Your task to perform on an android device: Open battery settings Image 0: 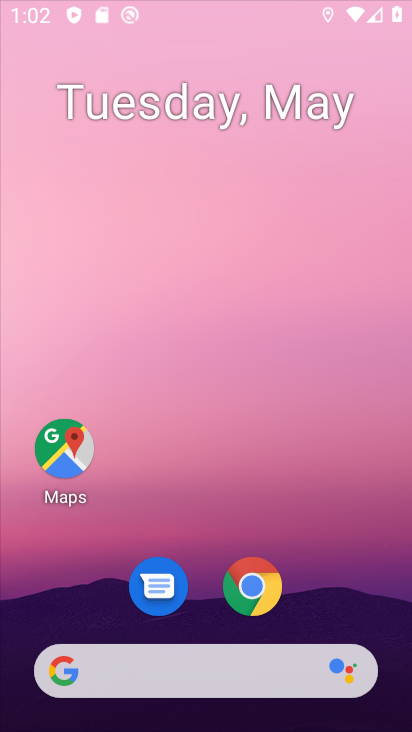
Step 0: click (331, 142)
Your task to perform on an android device: Open battery settings Image 1: 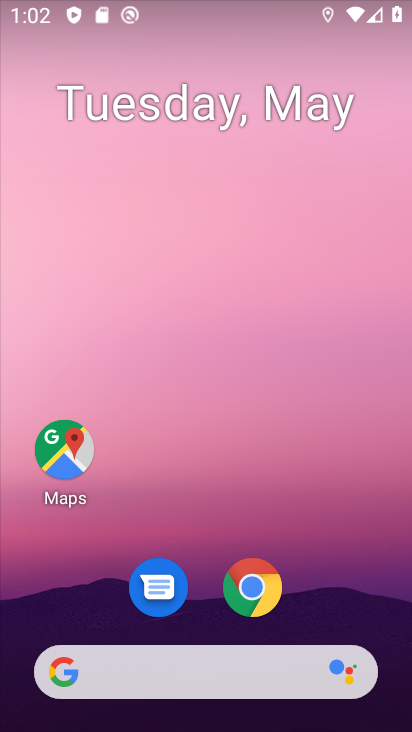
Step 1: drag from (223, 625) to (254, 102)
Your task to perform on an android device: Open battery settings Image 2: 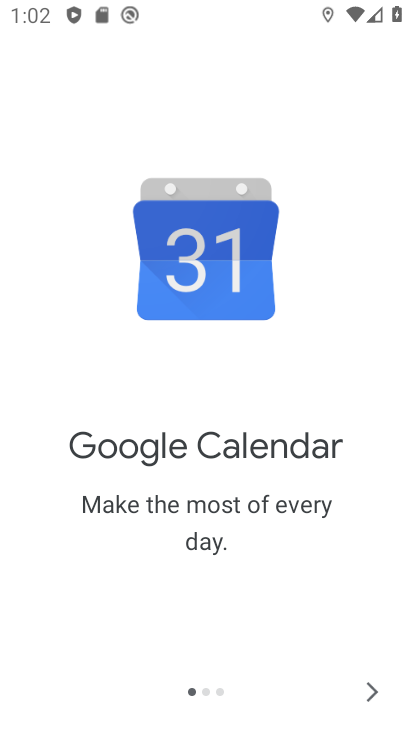
Step 2: press home button
Your task to perform on an android device: Open battery settings Image 3: 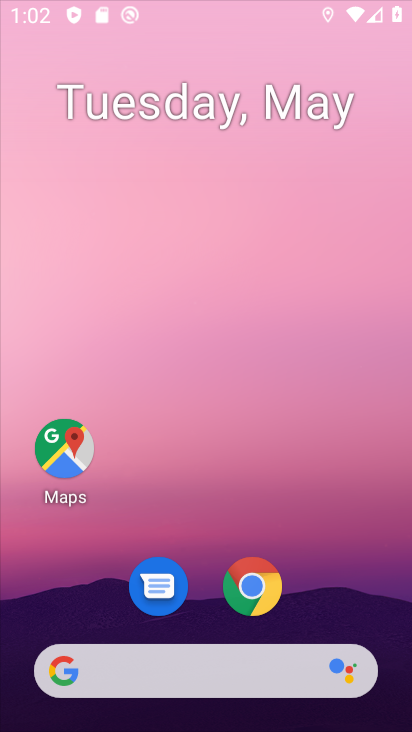
Step 3: drag from (255, 654) to (328, 52)
Your task to perform on an android device: Open battery settings Image 4: 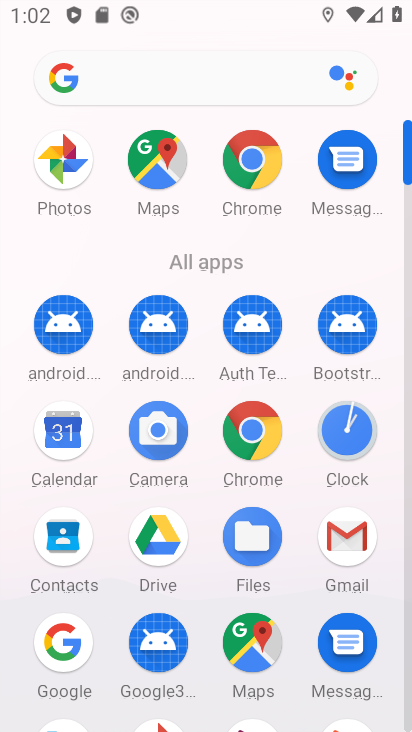
Step 4: drag from (190, 621) to (225, 110)
Your task to perform on an android device: Open battery settings Image 5: 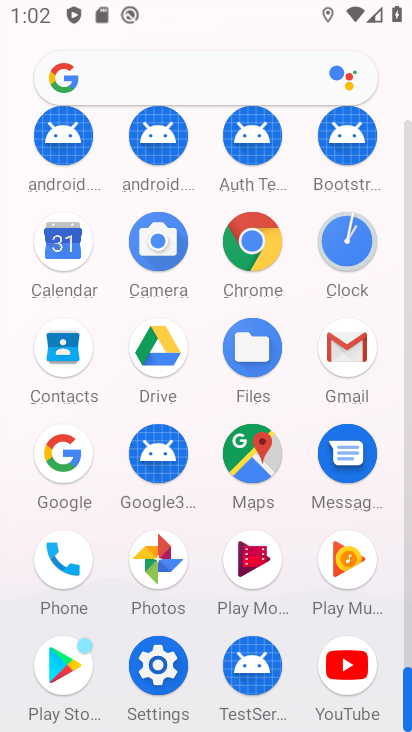
Step 5: click (154, 688)
Your task to perform on an android device: Open battery settings Image 6: 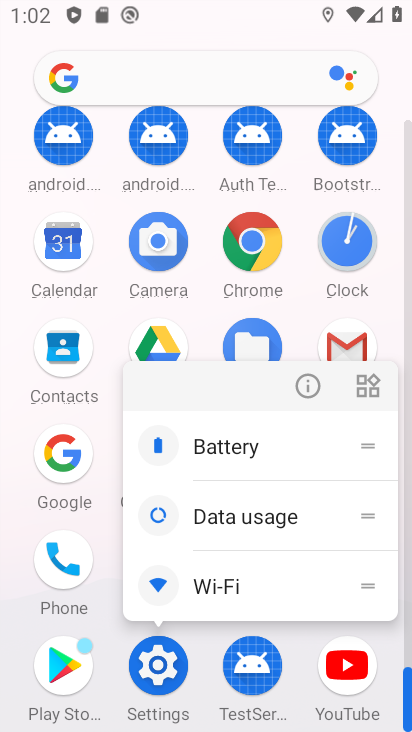
Step 6: click (305, 391)
Your task to perform on an android device: Open battery settings Image 7: 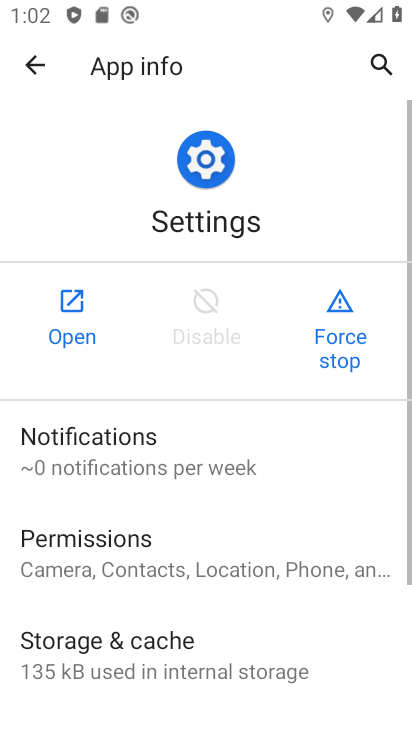
Step 7: click (59, 341)
Your task to perform on an android device: Open battery settings Image 8: 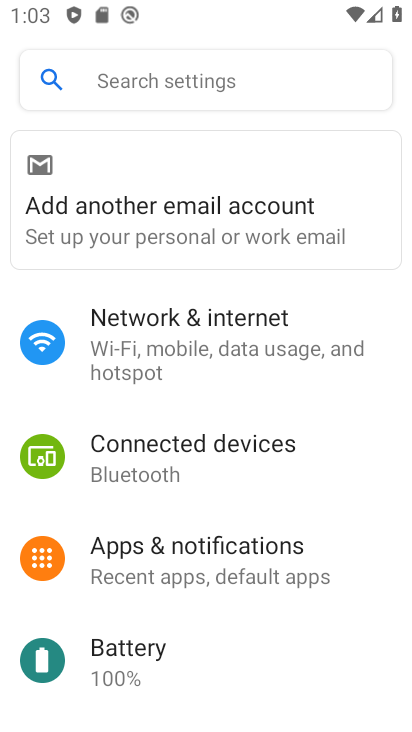
Step 8: drag from (216, 631) to (215, 186)
Your task to perform on an android device: Open battery settings Image 9: 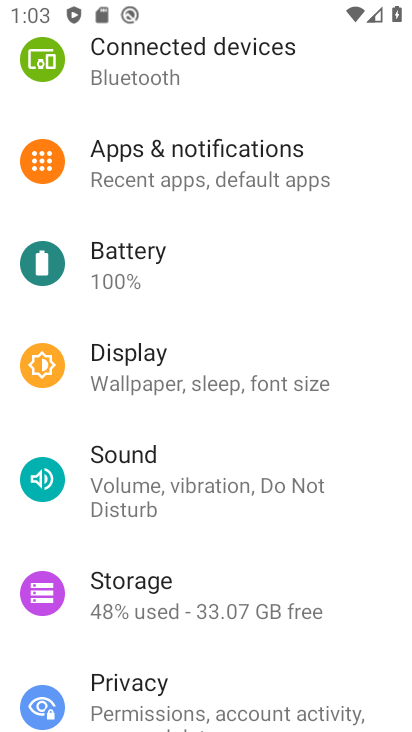
Step 9: click (183, 252)
Your task to perform on an android device: Open battery settings Image 10: 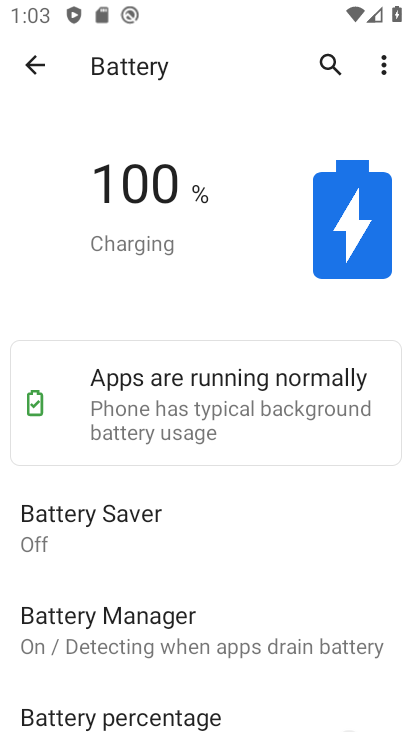
Step 10: task complete